Your task to perform on an android device: move a message to another label in the gmail app Image 0: 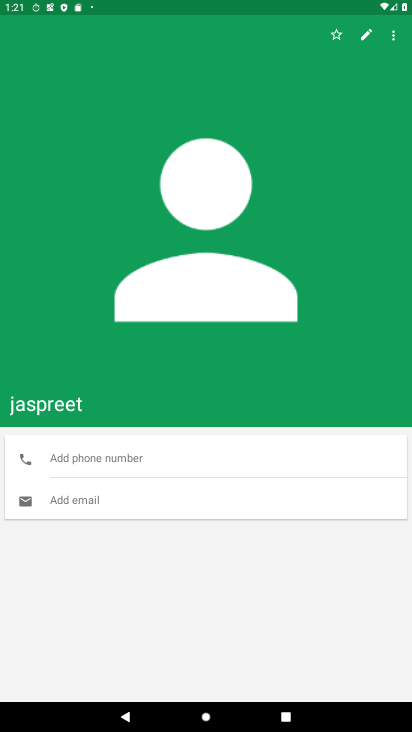
Step 0: press home button
Your task to perform on an android device: move a message to another label in the gmail app Image 1: 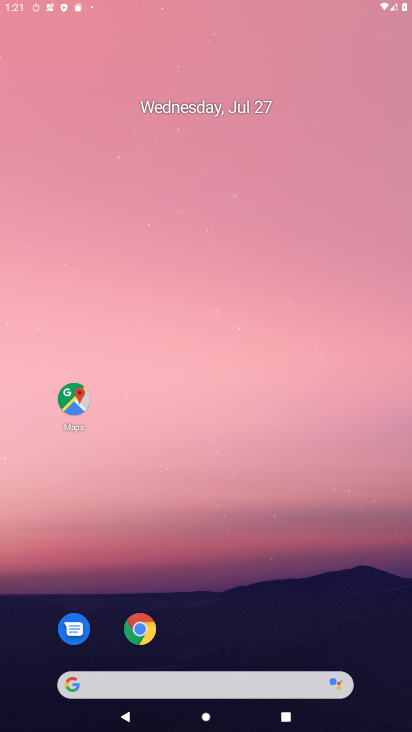
Step 1: drag from (340, 565) to (128, 108)
Your task to perform on an android device: move a message to another label in the gmail app Image 2: 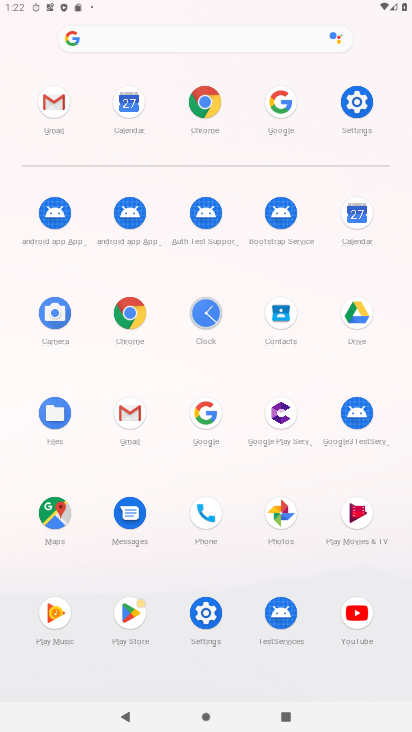
Step 2: click (139, 415)
Your task to perform on an android device: move a message to another label in the gmail app Image 3: 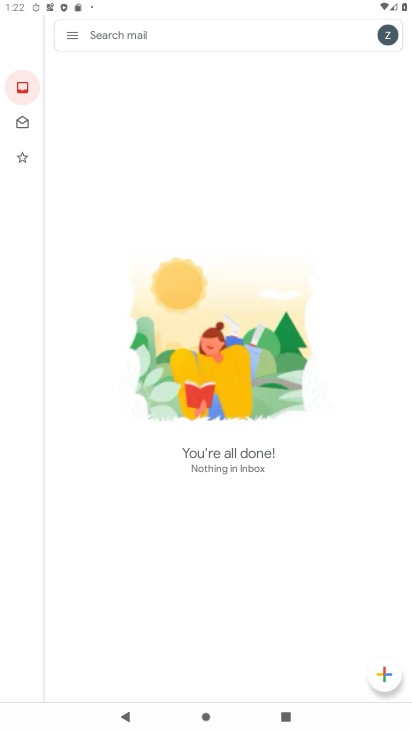
Step 3: task complete